Your task to perform on an android device: Do I have any events today? Image 0: 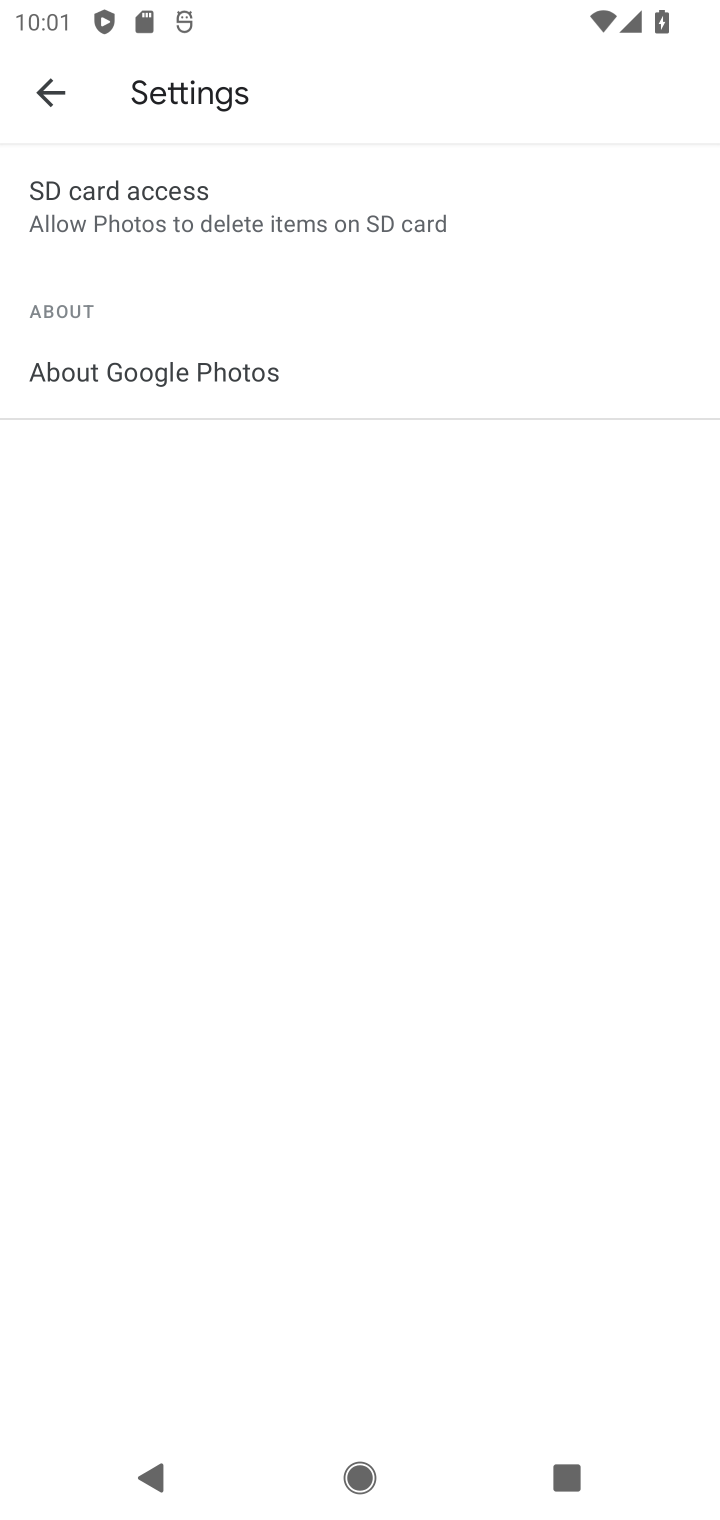
Step 0: press home button
Your task to perform on an android device: Do I have any events today? Image 1: 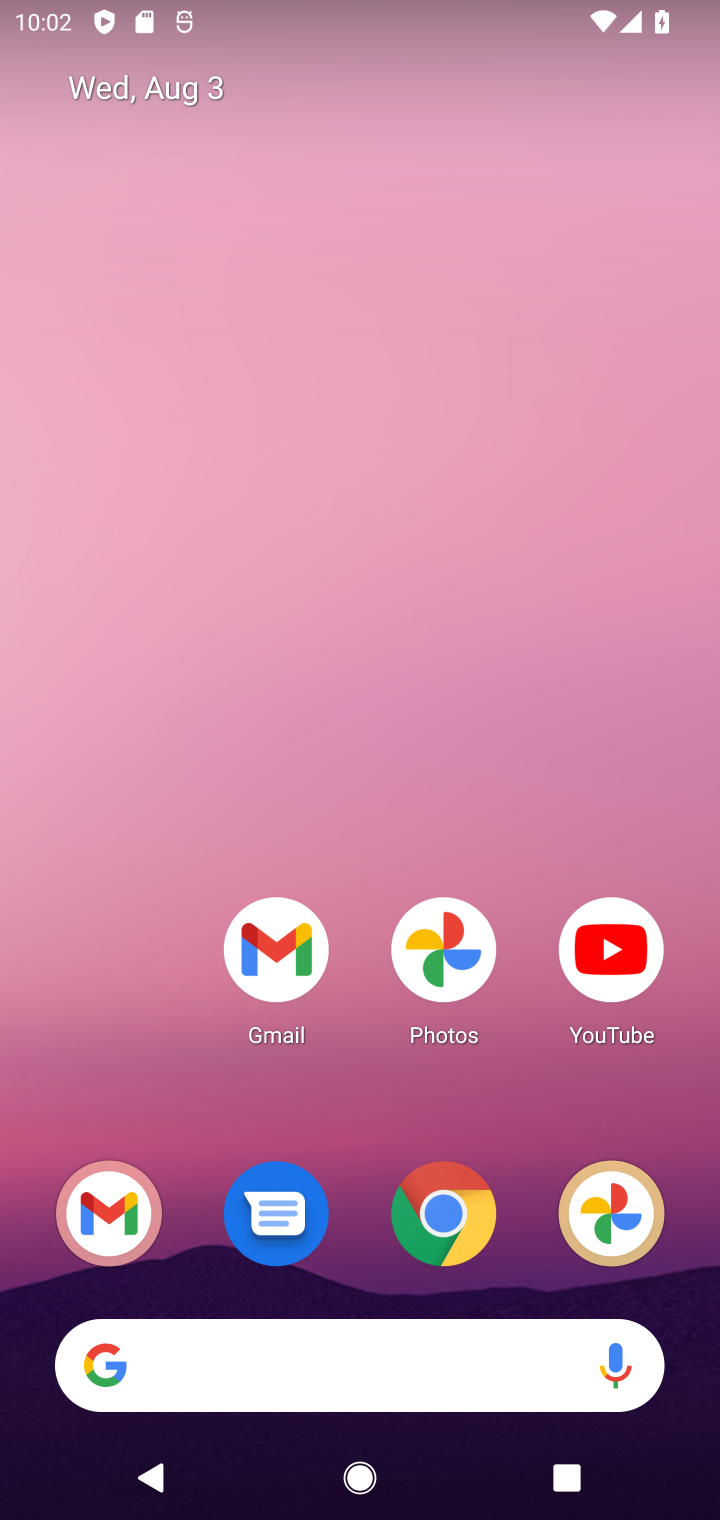
Step 1: drag from (433, 1147) to (341, 247)
Your task to perform on an android device: Do I have any events today? Image 2: 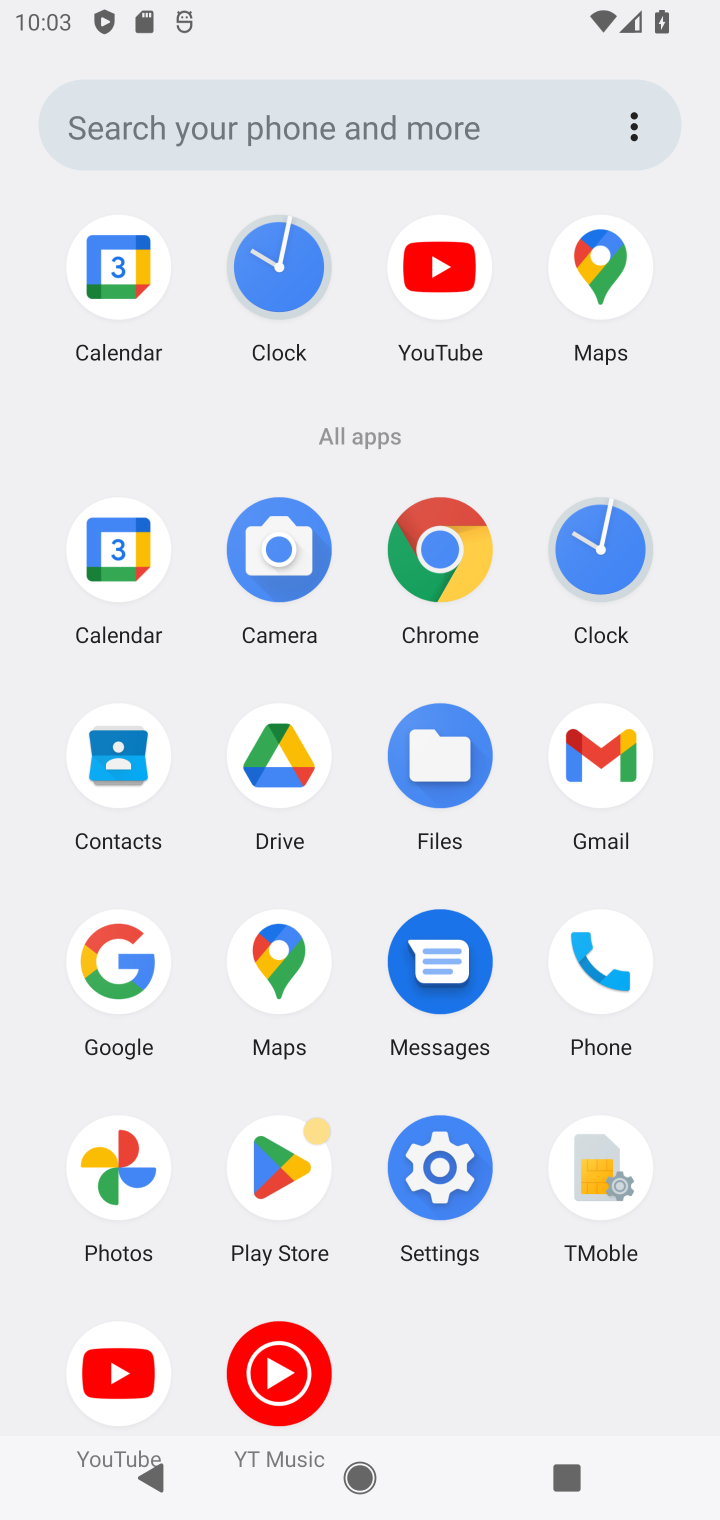
Step 2: click (135, 287)
Your task to perform on an android device: Do I have any events today? Image 3: 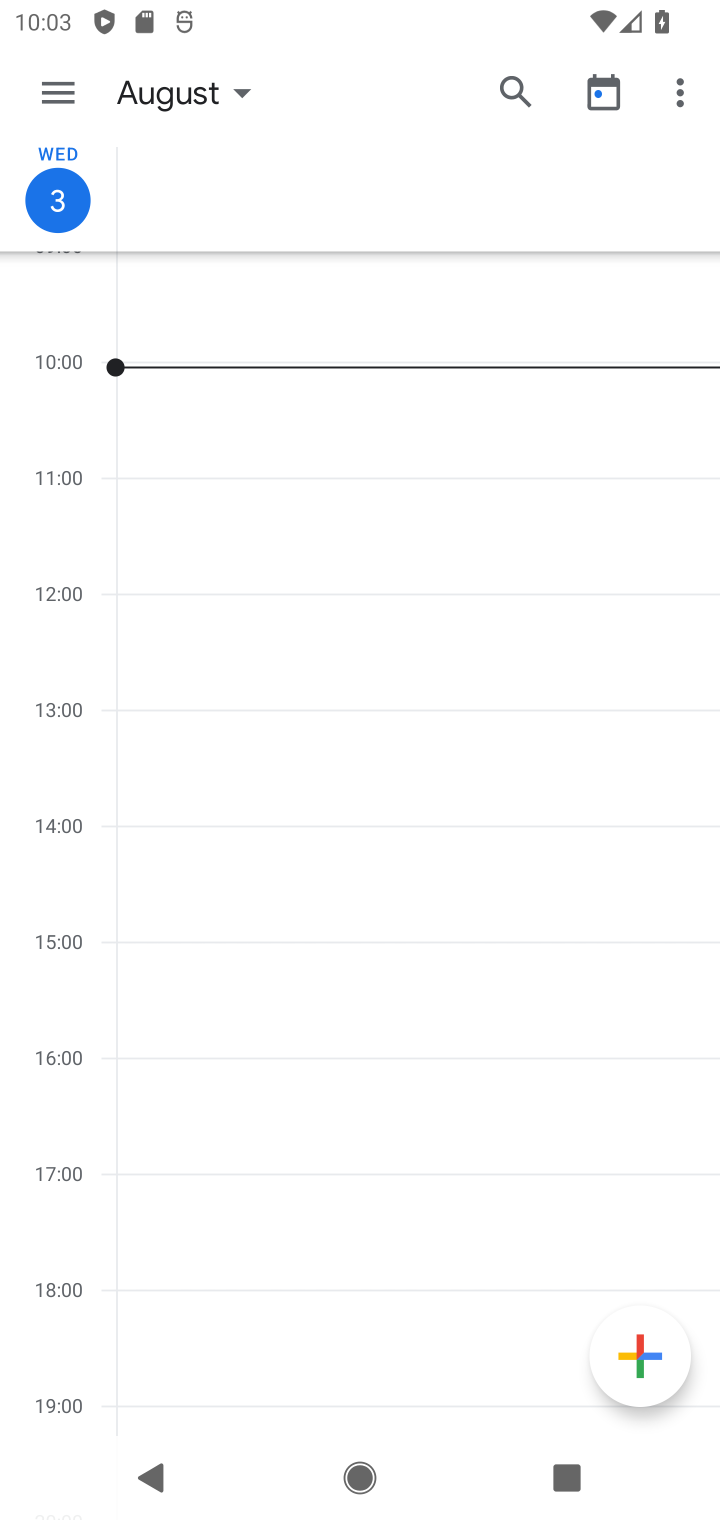
Step 3: task complete